Your task to perform on an android device: change your default location settings in chrome Image 0: 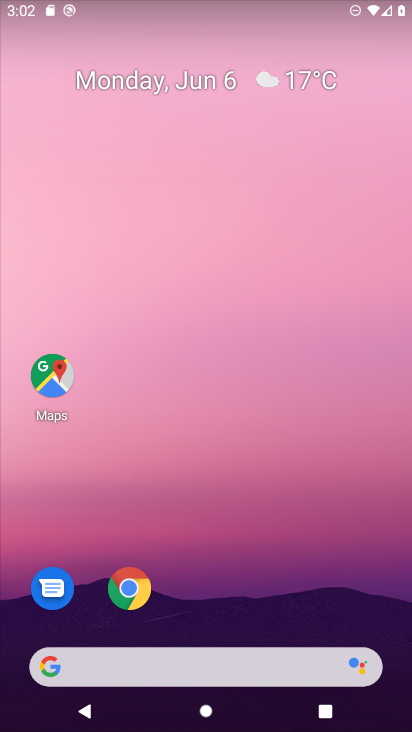
Step 0: click (138, 562)
Your task to perform on an android device: change your default location settings in chrome Image 1: 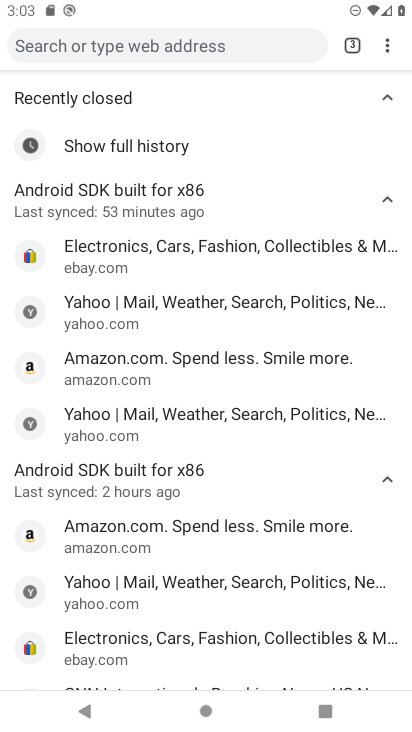
Step 1: click (392, 42)
Your task to perform on an android device: change your default location settings in chrome Image 2: 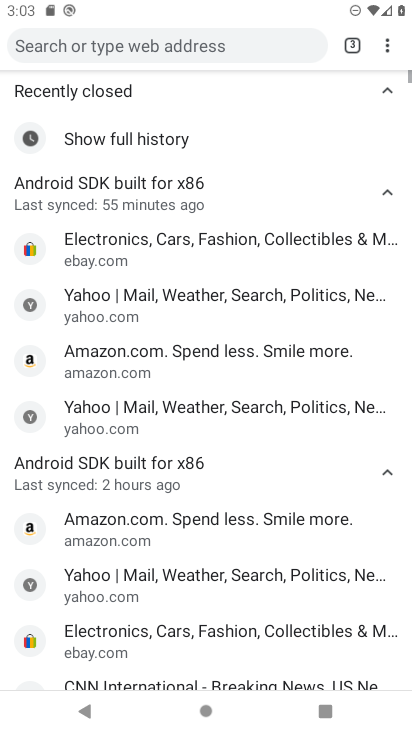
Step 2: click (391, 43)
Your task to perform on an android device: change your default location settings in chrome Image 3: 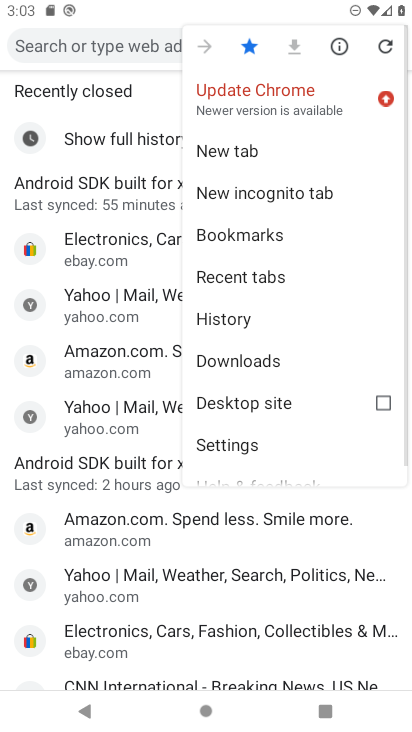
Step 3: click (256, 444)
Your task to perform on an android device: change your default location settings in chrome Image 4: 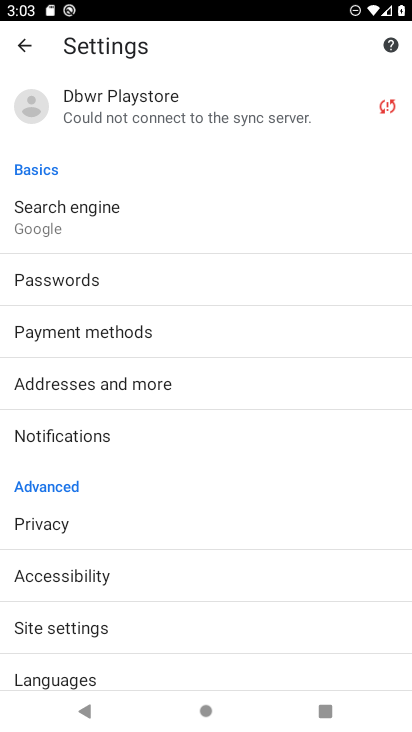
Step 4: click (85, 625)
Your task to perform on an android device: change your default location settings in chrome Image 5: 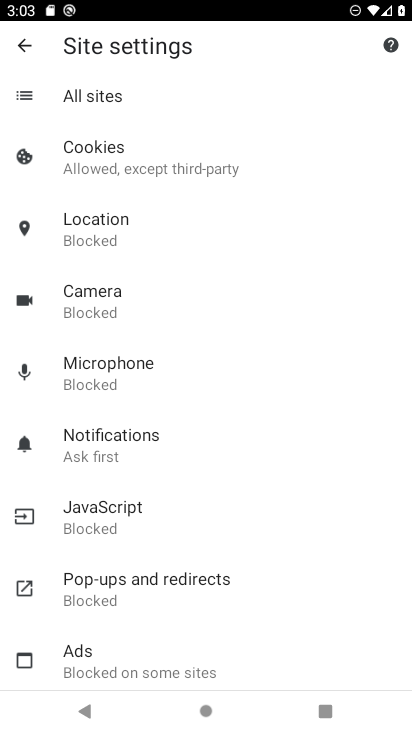
Step 5: task complete